Your task to perform on an android device: set the timer Image 0: 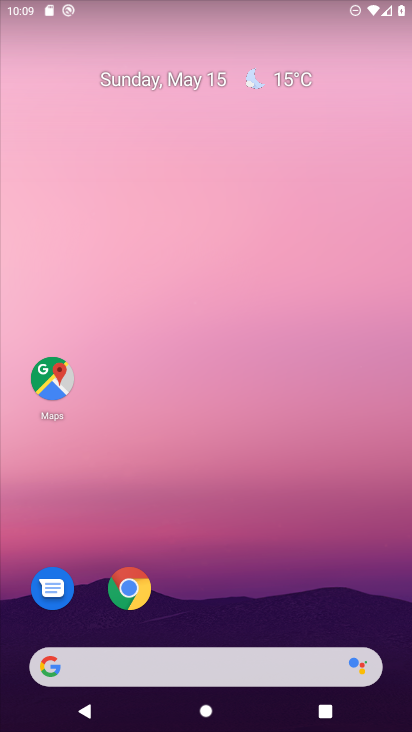
Step 0: drag from (204, 563) to (207, 5)
Your task to perform on an android device: set the timer Image 1: 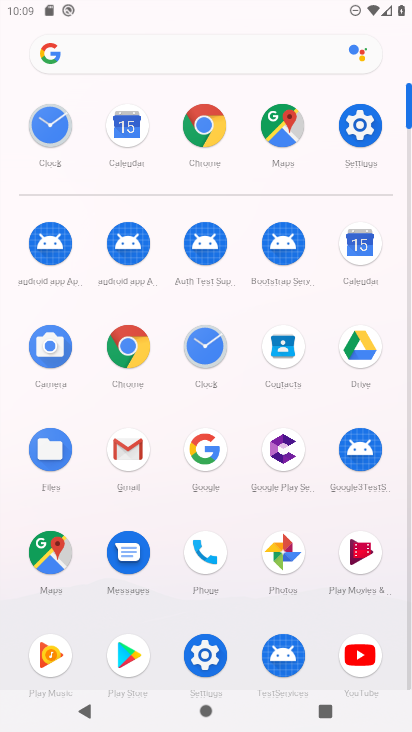
Step 1: click (205, 365)
Your task to perform on an android device: set the timer Image 2: 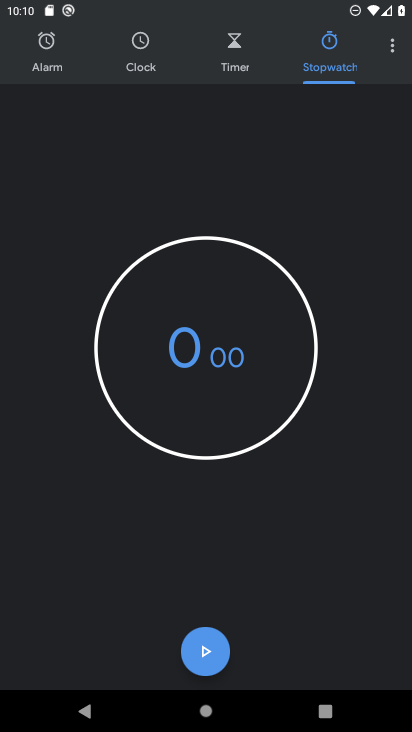
Step 2: click (250, 62)
Your task to perform on an android device: set the timer Image 3: 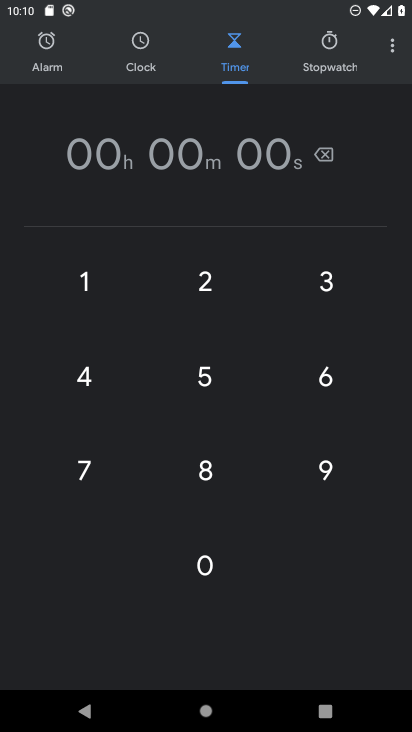
Step 3: click (85, 478)
Your task to perform on an android device: set the timer Image 4: 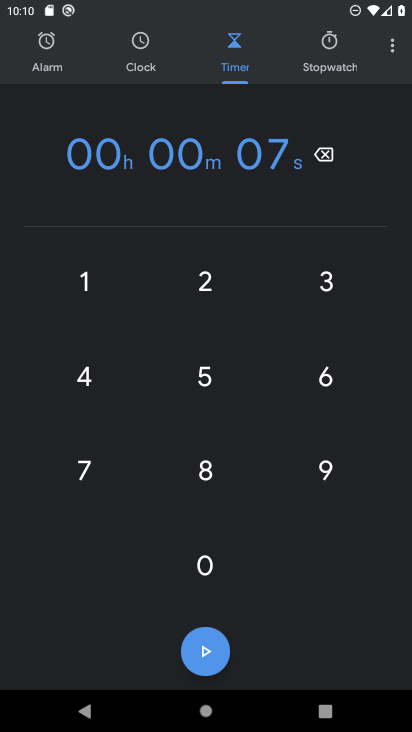
Step 4: click (197, 382)
Your task to perform on an android device: set the timer Image 5: 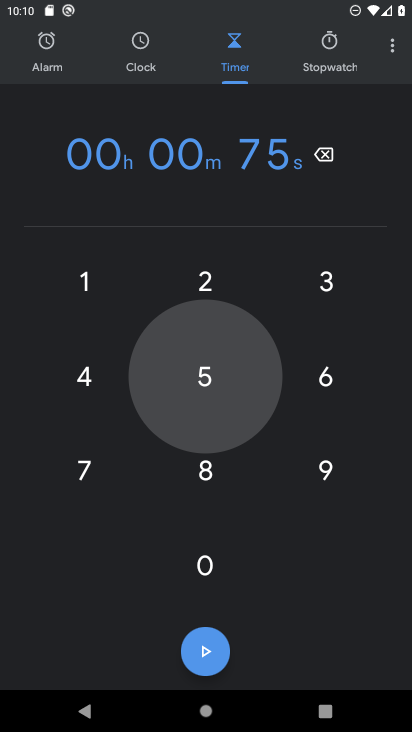
Step 5: click (334, 474)
Your task to perform on an android device: set the timer Image 6: 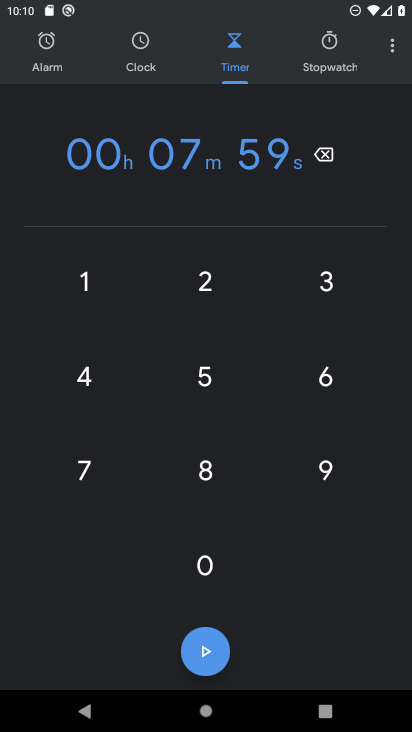
Step 6: click (179, 665)
Your task to perform on an android device: set the timer Image 7: 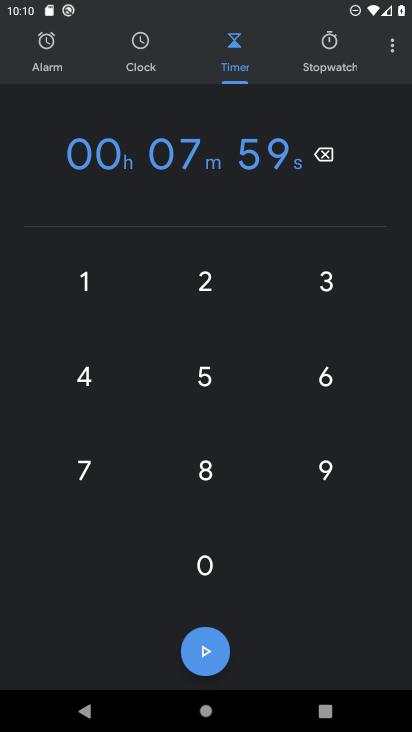
Step 7: click (191, 661)
Your task to perform on an android device: set the timer Image 8: 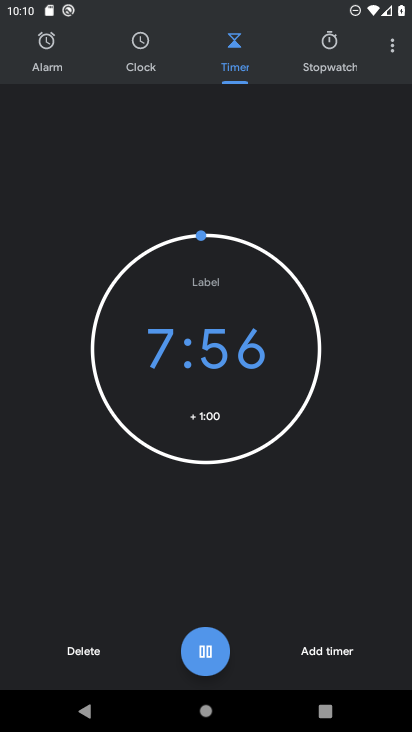
Step 8: task complete